Your task to perform on an android device: Check the news Image 0: 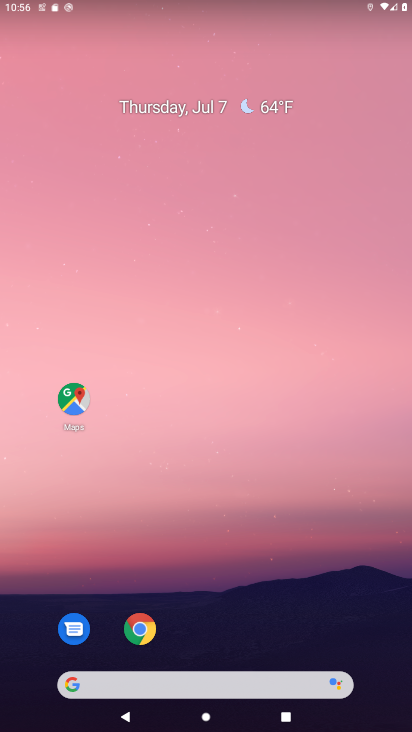
Step 0: drag from (219, 651) to (265, 105)
Your task to perform on an android device: Check the news Image 1: 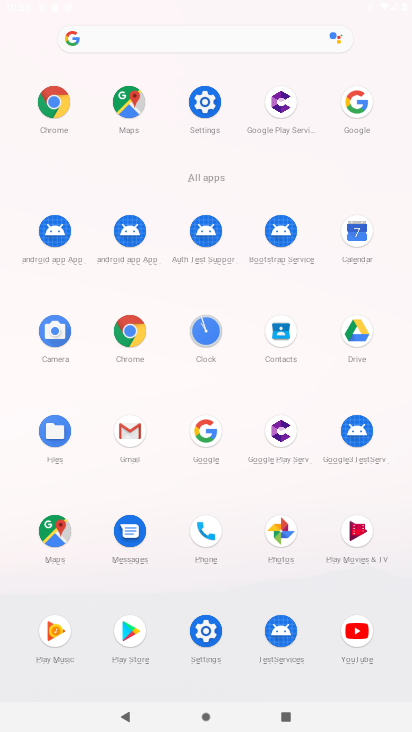
Step 1: click (204, 430)
Your task to perform on an android device: Check the news Image 2: 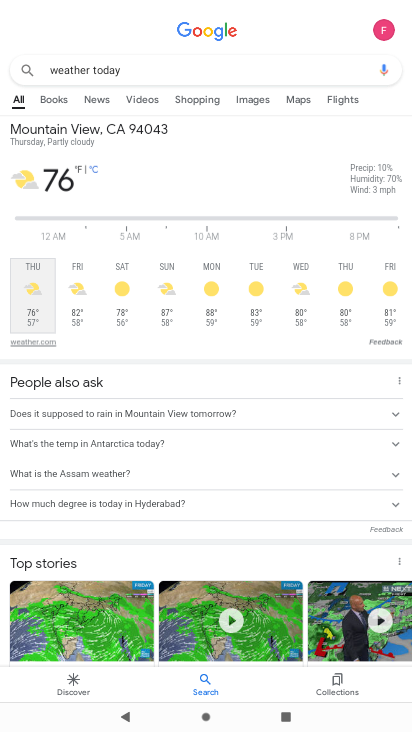
Step 2: click (212, 68)
Your task to perform on an android device: Check the news Image 3: 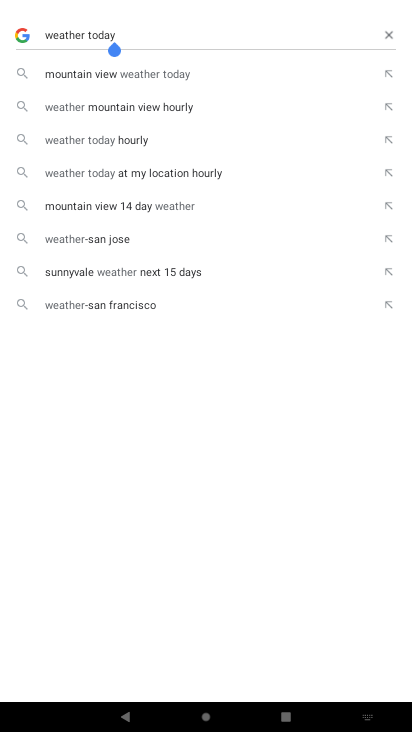
Step 3: click (387, 34)
Your task to perform on an android device: Check the news Image 4: 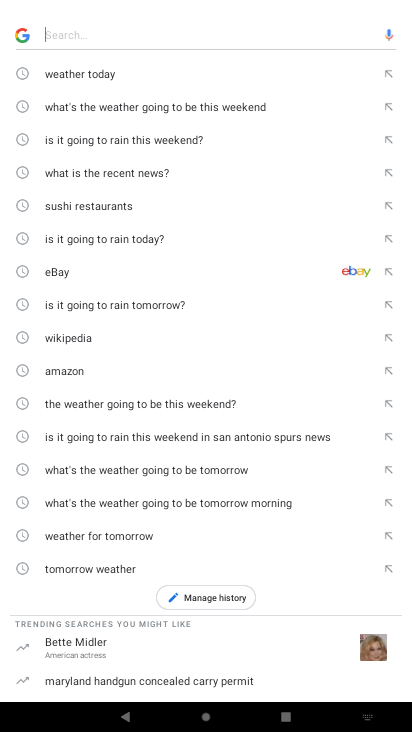
Step 4: type "news"
Your task to perform on an android device: Check the news Image 5: 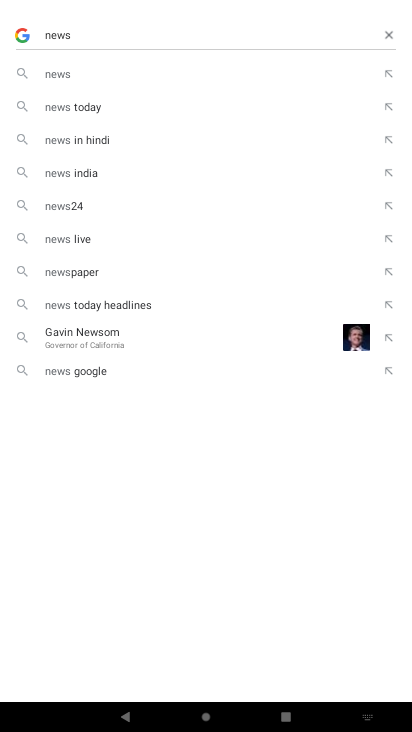
Step 5: click (67, 78)
Your task to perform on an android device: Check the news Image 6: 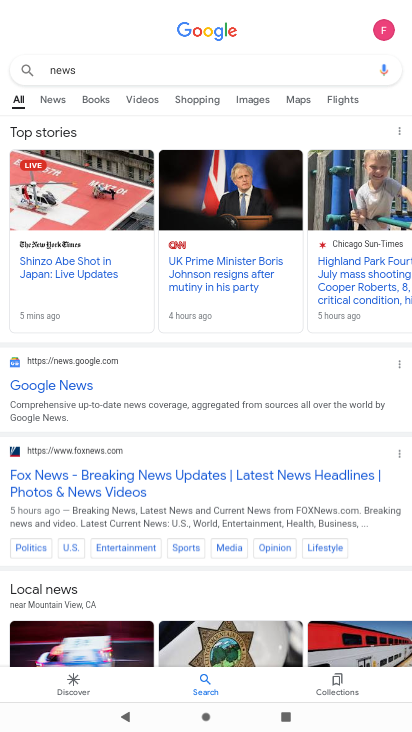
Step 6: click (85, 218)
Your task to perform on an android device: Check the news Image 7: 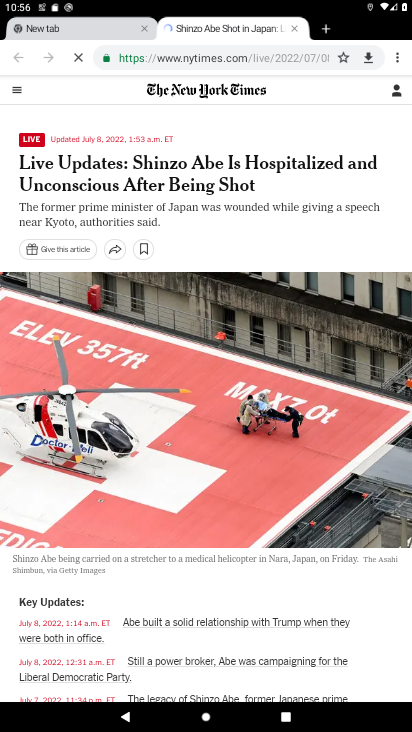
Step 7: task complete